Your task to perform on an android device: Open Google Maps and go to "Timeline" Image 0: 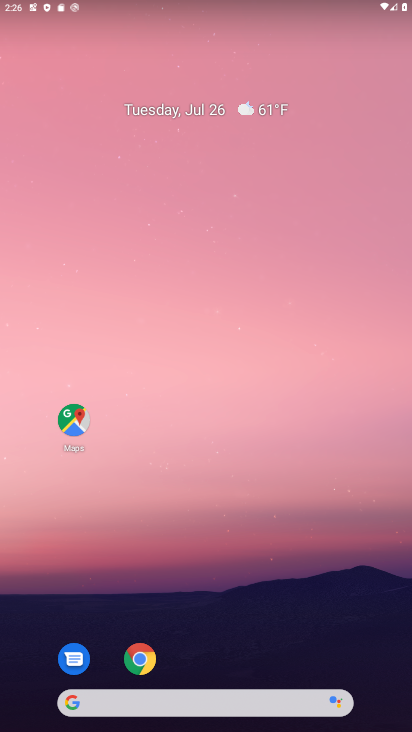
Step 0: click (68, 417)
Your task to perform on an android device: Open Google Maps and go to "Timeline" Image 1: 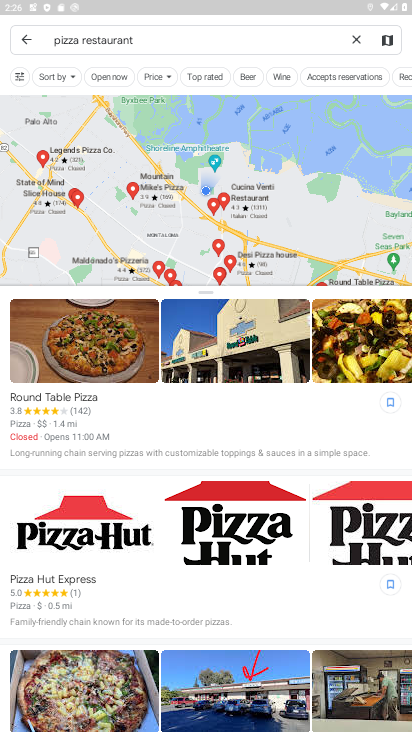
Step 1: click (21, 44)
Your task to perform on an android device: Open Google Maps and go to "Timeline" Image 2: 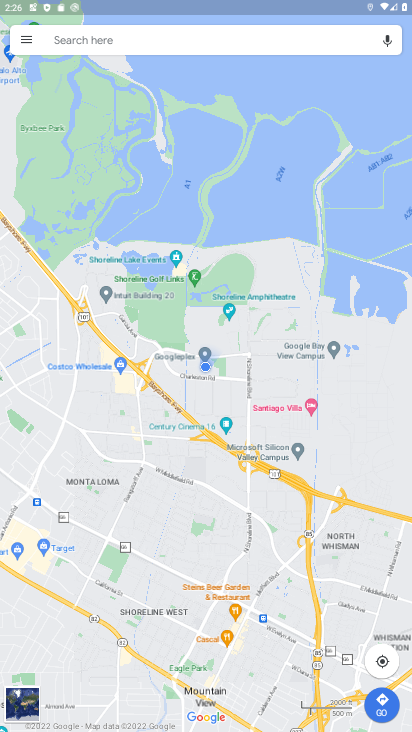
Step 2: click (21, 44)
Your task to perform on an android device: Open Google Maps and go to "Timeline" Image 3: 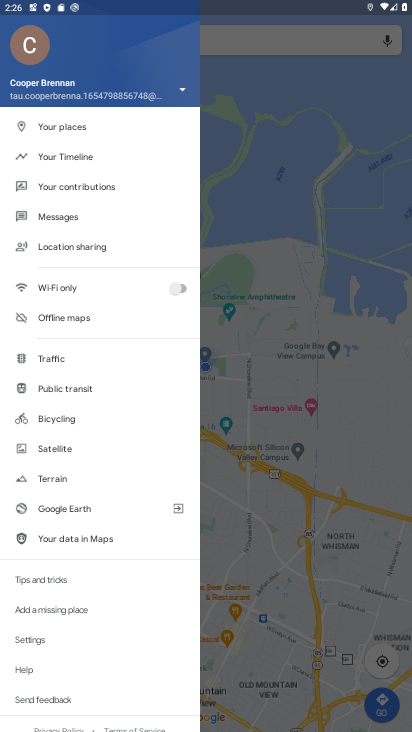
Step 3: click (70, 152)
Your task to perform on an android device: Open Google Maps and go to "Timeline" Image 4: 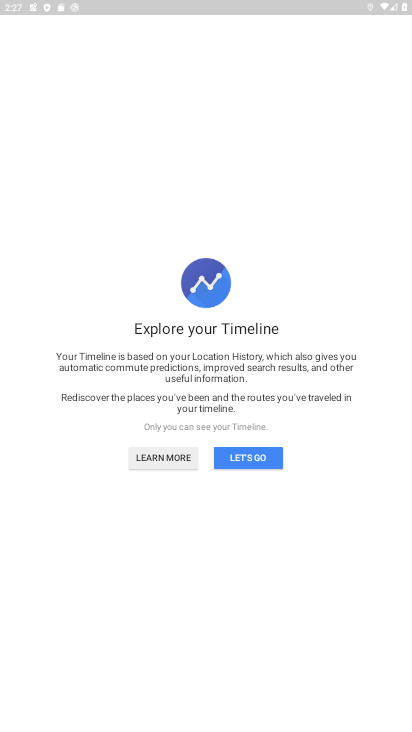
Step 4: click (252, 455)
Your task to perform on an android device: Open Google Maps and go to "Timeline" Image 5: 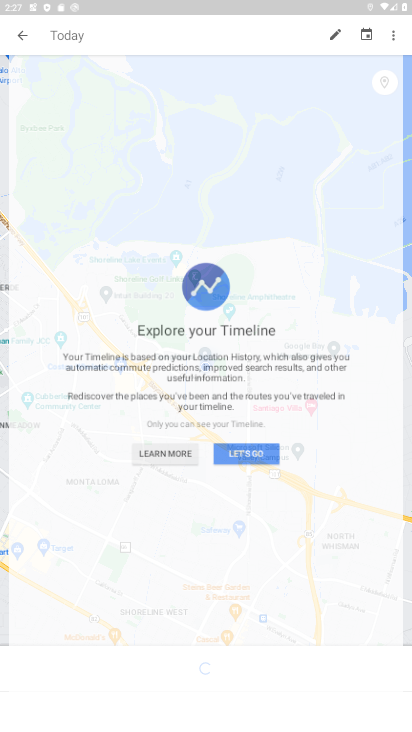
Step 5: click (252, 455)
Your task to perform on an android device: Open Google Maps and go to "Timeline" Image 6: 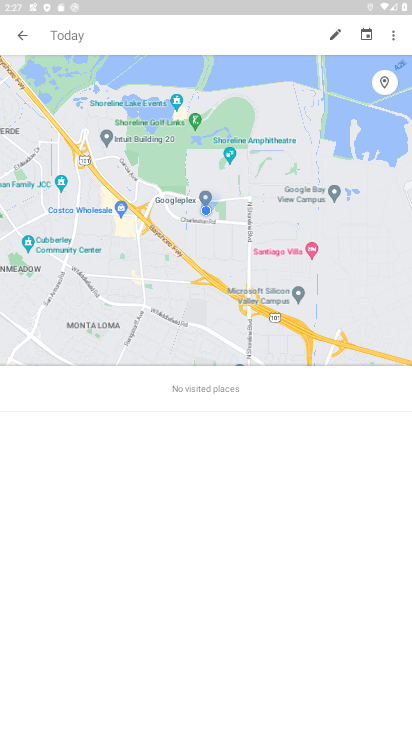
Step 6: task complete